Your task to perform on an android device: turn on bluetooth scan Image 0: 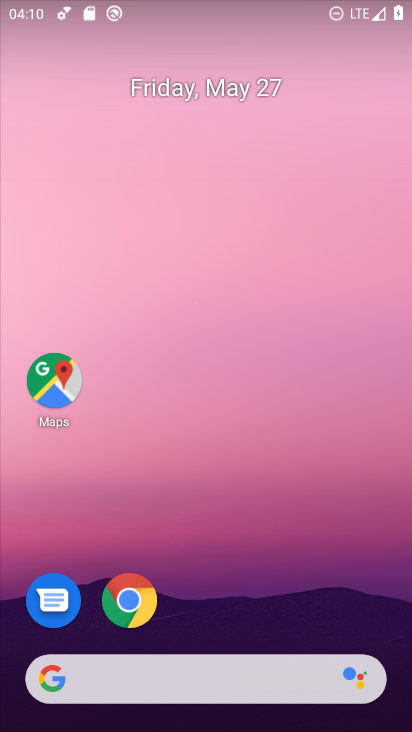
Step 0: drag from (228, 668) to (220, 93)
Your task to perform on an android device: turn on bluetooth scan Image 1: 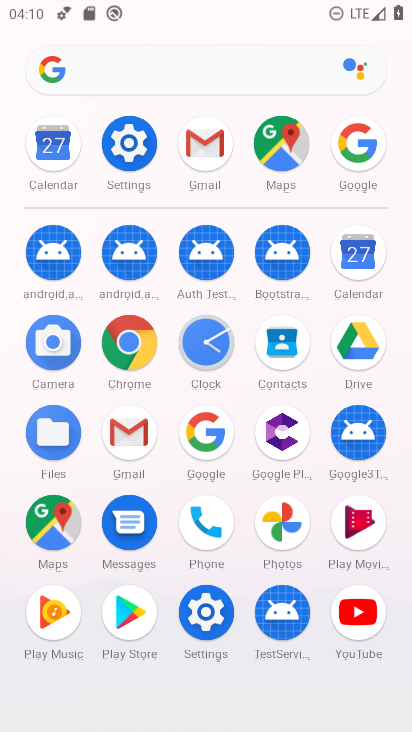
Step 1: click (141, 155)
Your task to perform on an android device: turn on bluetooth scan Image 2: 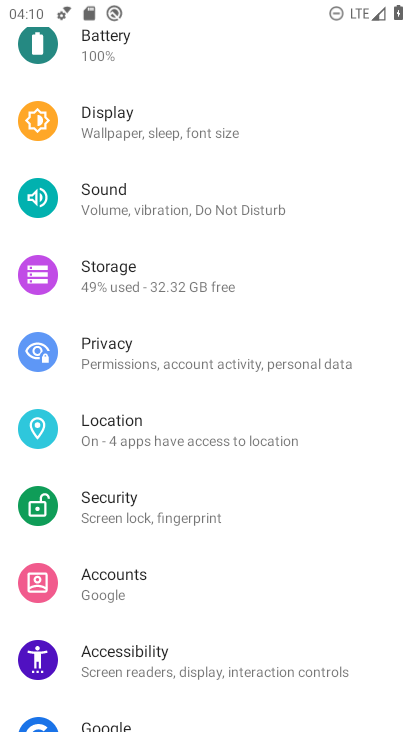
Step 2: click (124, 434)
Your task to perform on an android device: turn on bluetooth scan Image 3: 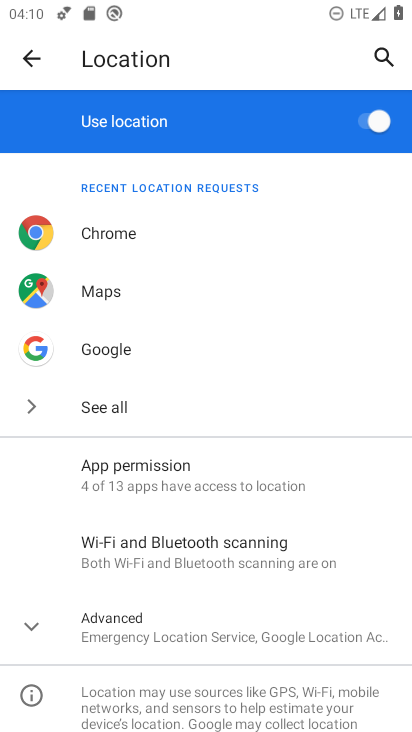
Step 3: click (183, 537)
Your task to perform on an android device: turn on bluetooth scan Image 4: 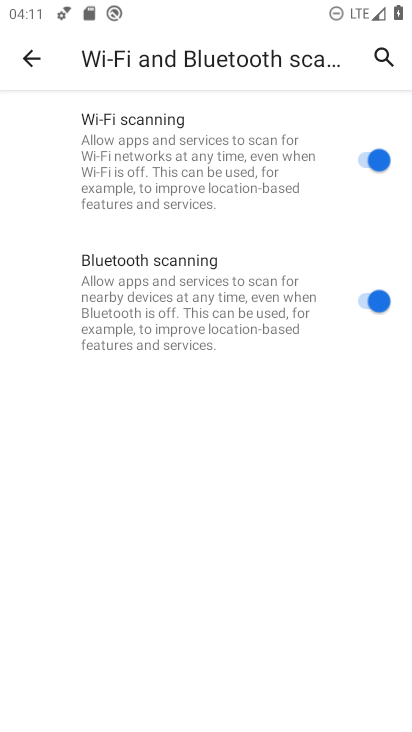
Step 4: task complete